Your task to perform on an android device: Open internet settings Image 0: 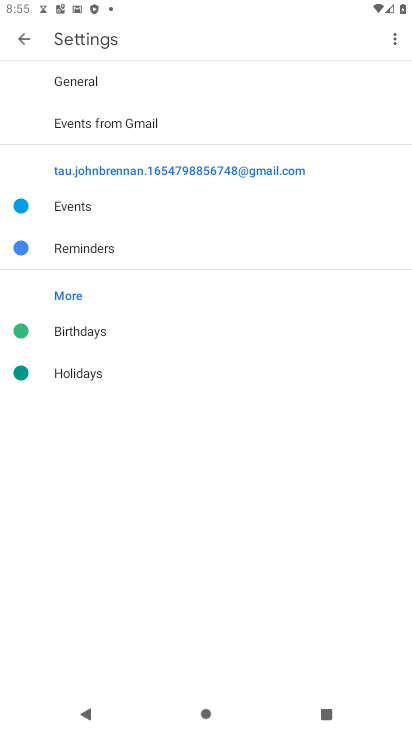
Step 0: press home button
Your task to perform on an android device: Open internet settings Image 1: 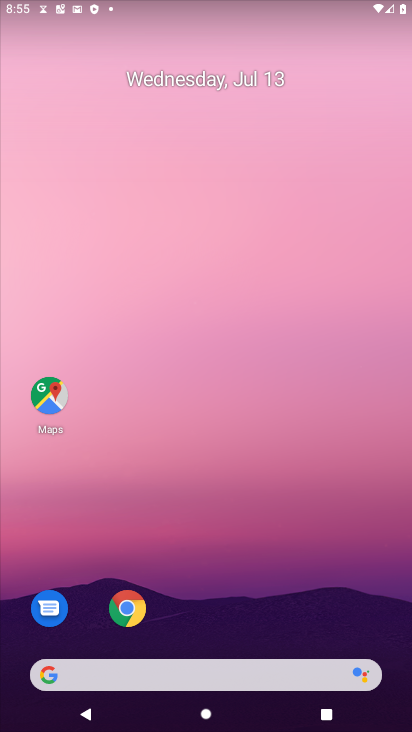
Step 1: drag from (238, 631) to (337, 28)
Your task to perform on an android device: Open internet settings Image 2: 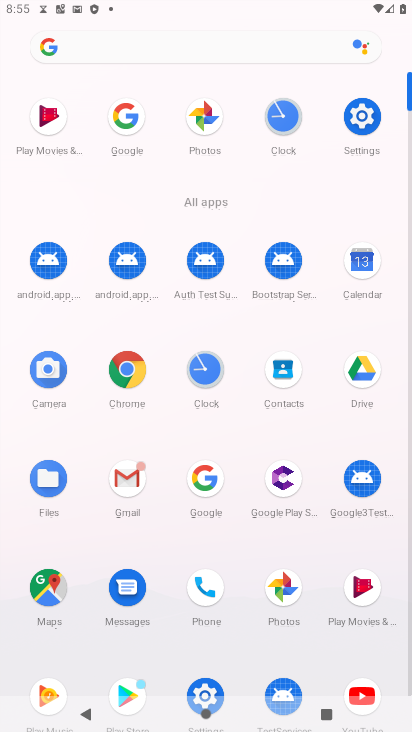
Step 2: click (205, 694)
Your task to perform on an android device: Open internet settings Image 3: 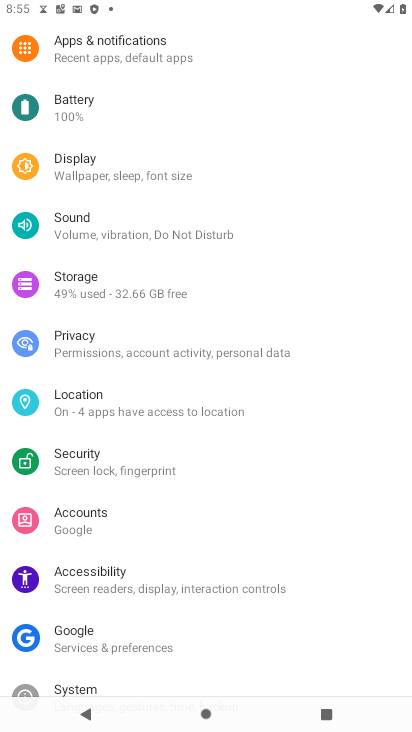
Step 3: drag from (253, 151) to (178, 662)
Your task to perform on an android device: Open internet settings Image 4: 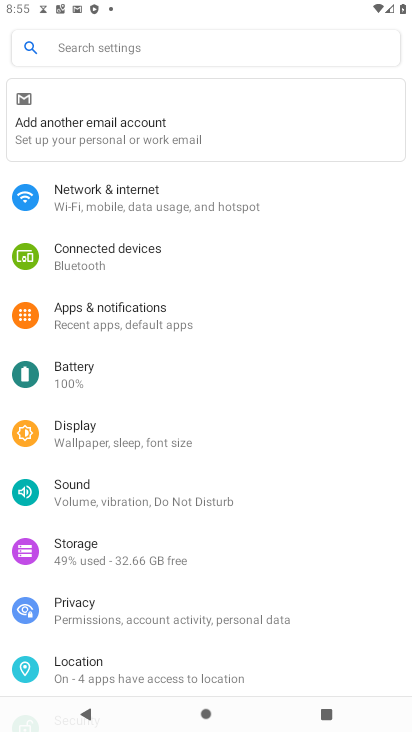
Step 4: click (165, 205)
Your task to perform on an android device: Open internet settings Image 5: 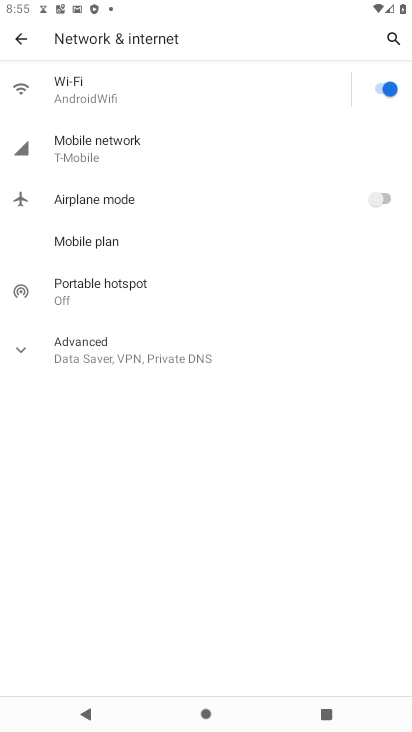
Step 5: click (140, 161)
Your task to perform on an android device: Open internet settings Image 6: 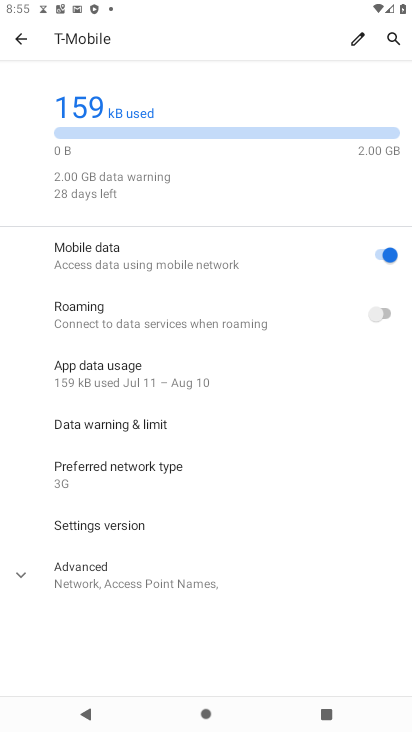
Step 6: task complete